Your task to perform on an android device: open app "LinkedIn" (install if not already installed), go to login, and select forgot password Image 0: 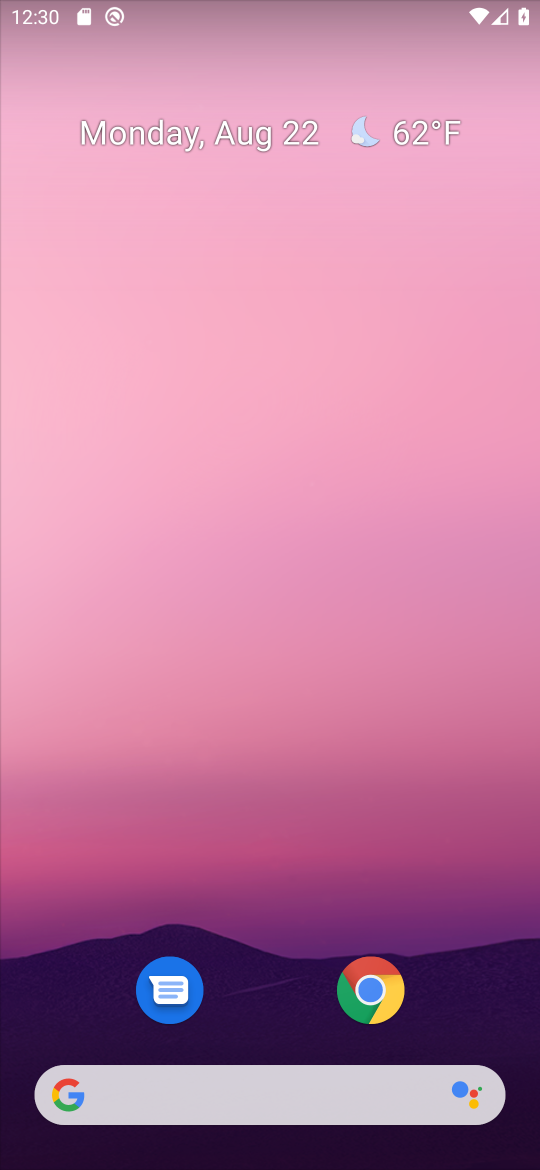
Step 0: drag from (264, 931) to (312, 283)
Your task to perform on an android device: open app "LinkedIn" (install if not already installed), go to login, and select forgot password Image 1: 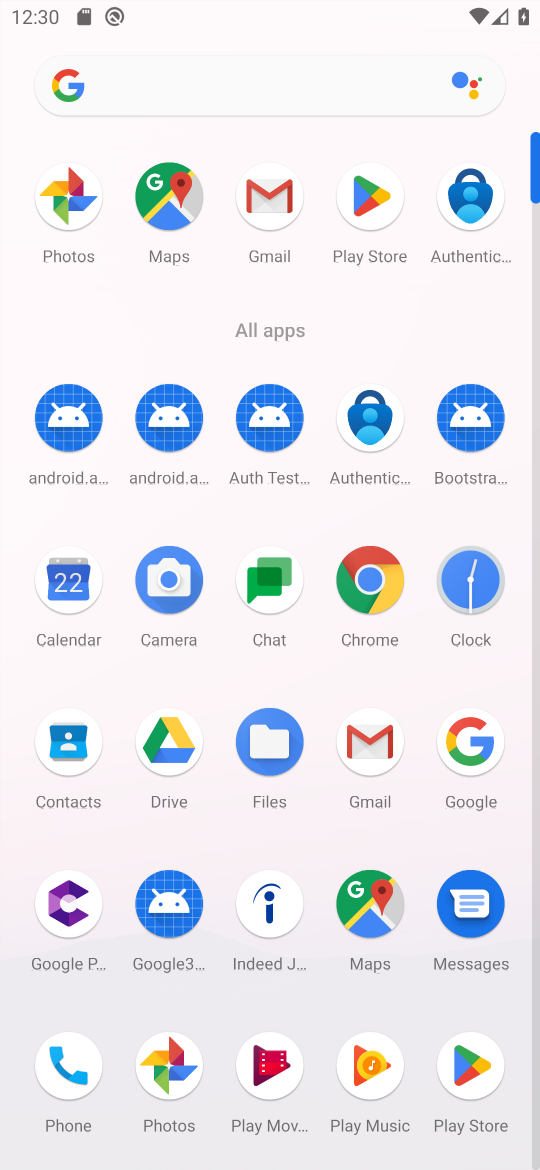
Step 1: click (367, 196)
Your task to perform on an android device: open app "LinkedIn" (install if not already installed), go to login, and select forgot password Image 2: 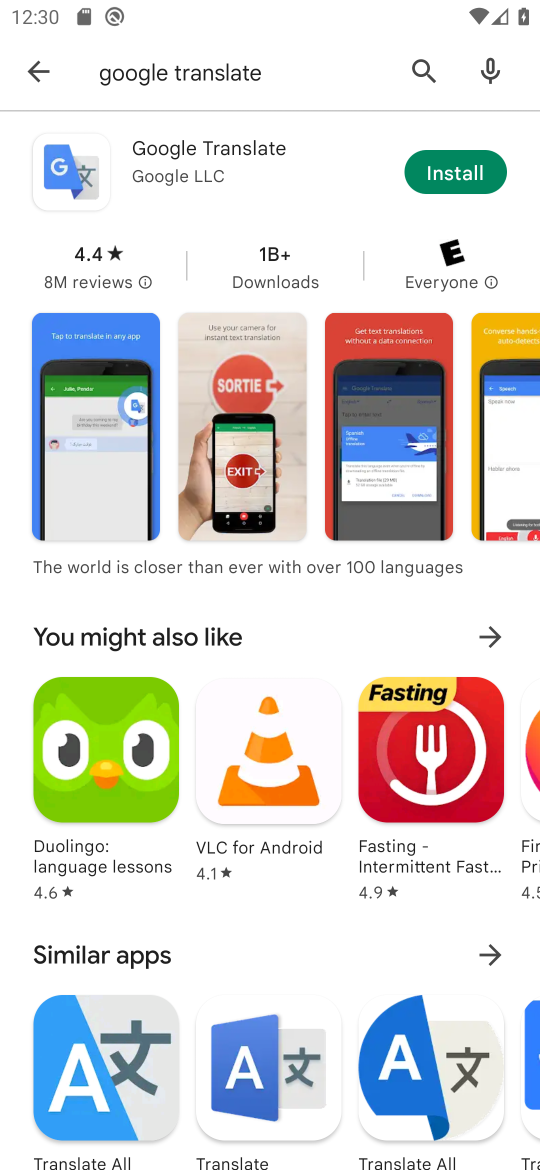
Step 2: click (427, 81)
Your task to perform on an android device: open app "LinkedIn" (install if not already installed), go to login, and select forgot password Image 3: 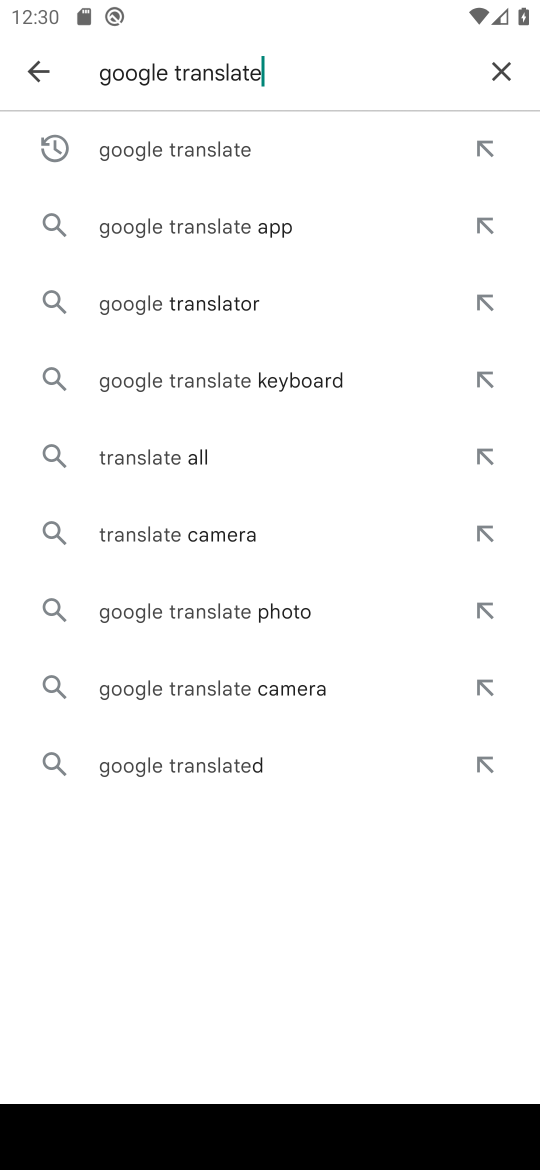
Step 3: click (498, 66)
Your task to perform on an android device: open app "LinkedIn" (install if not already installed), go to login, and select forgot password Image 4: 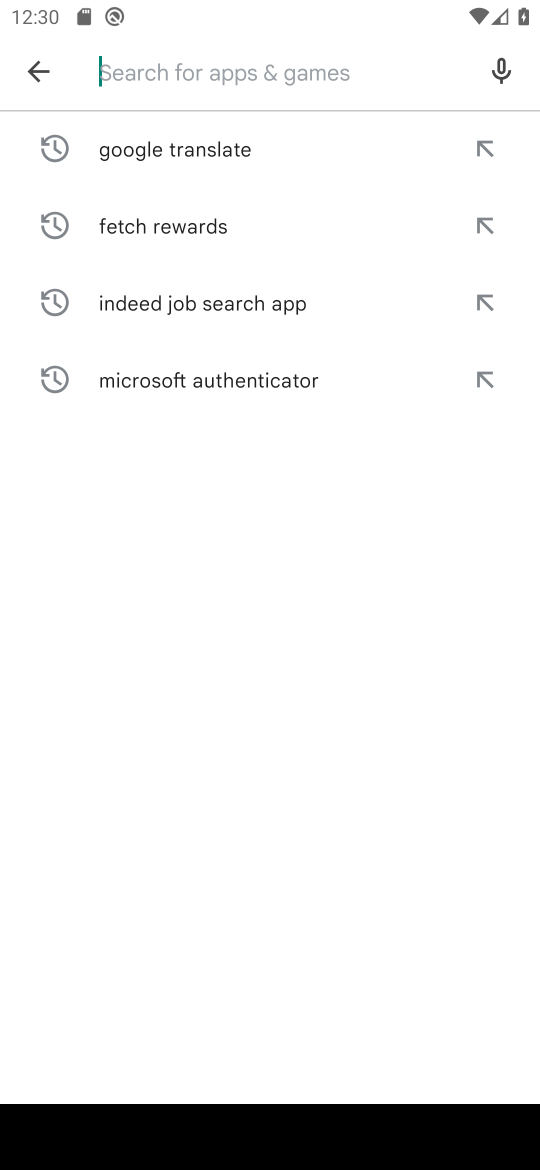
Step 4: type "LinkedIn"
Your task to perform on an android device: open app "LinkedIn" (install if not already installed), go to login, and select forgot password Image 5: 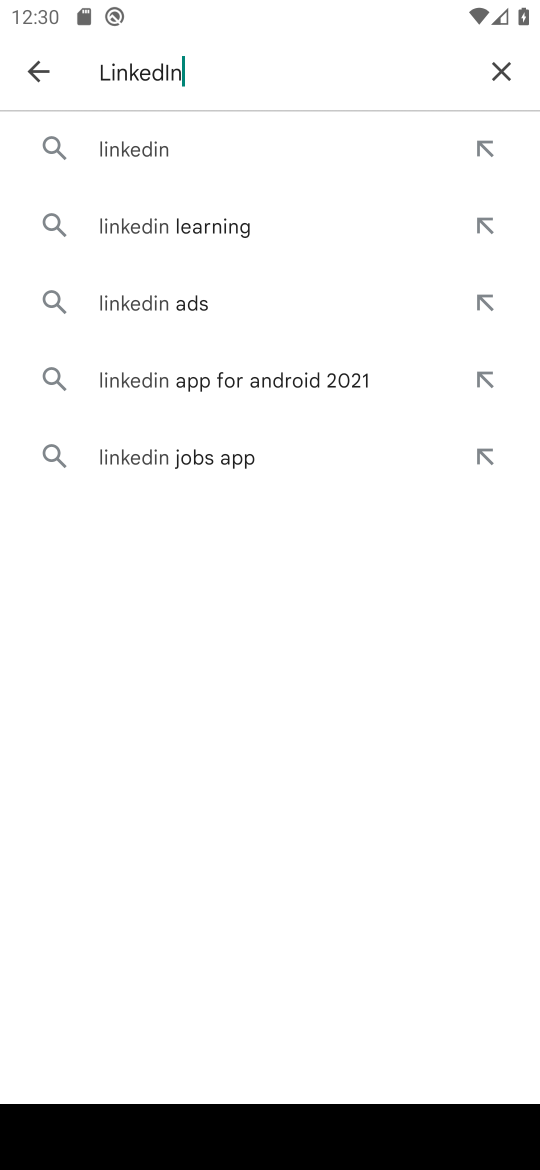
Step 5: click (162, 158)
Your task to perform on an android device: open app "LinkedIn" (install if not already installed), go to login, and select forgot password Image 6: 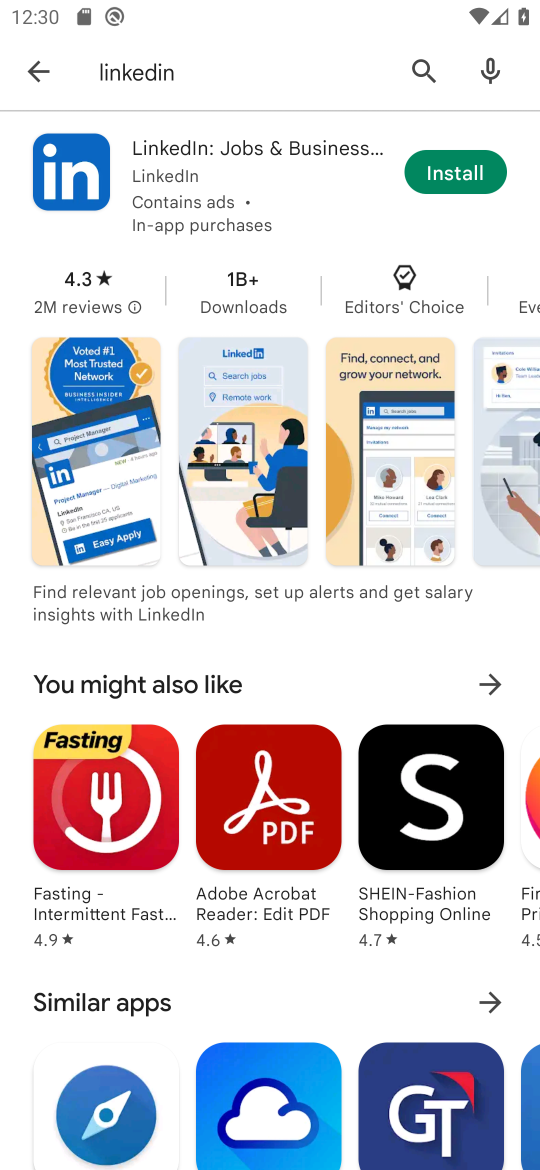
Step 6: click (484, 158)
Your task to perform on an android device: open app "LinkedIn" (install if not already installed), go to login, and select forgot password Image 7: 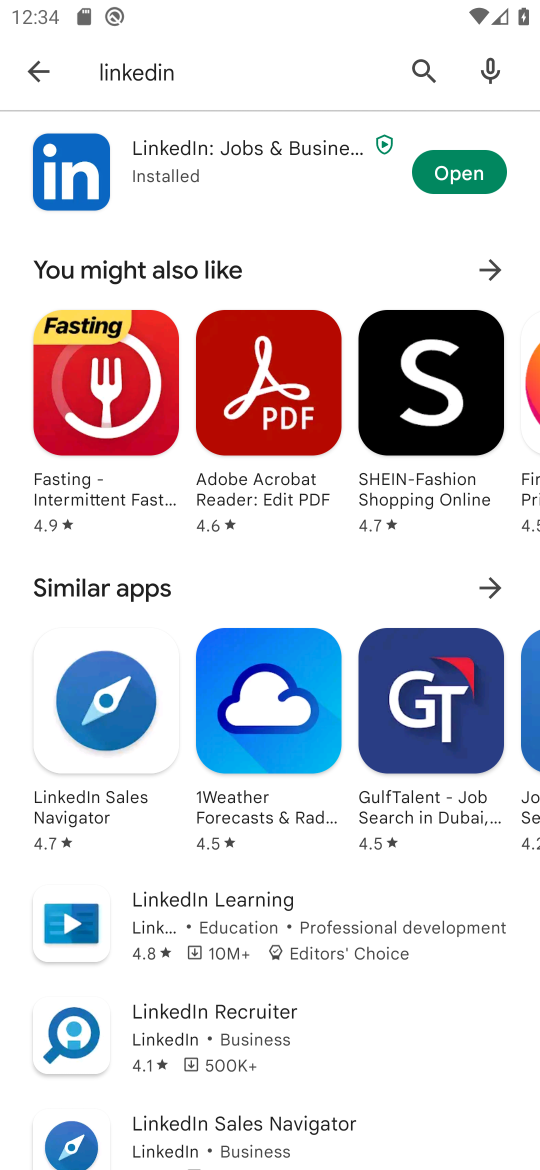
Step 7: click (431, 173)
Your task to perform on an android device: open app "LinkedIn" (install if not already installed), go to login, and select forgot password Image 8: 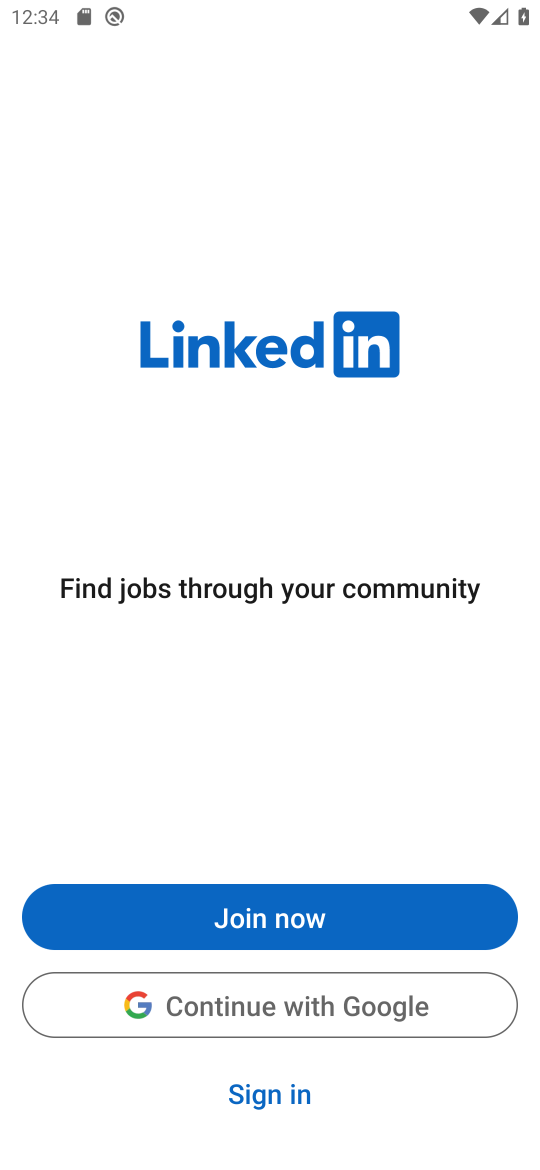
Step 8: task complete